Your task to perform on an android device: turn notification dots off Image 0: 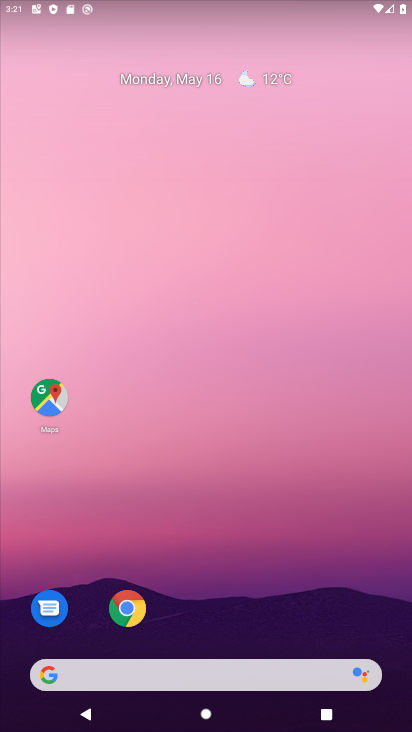
Step 0: drag from (208, 620) to (237, 196)
Your task to perform on an android device: turn notification dots off Image 1: 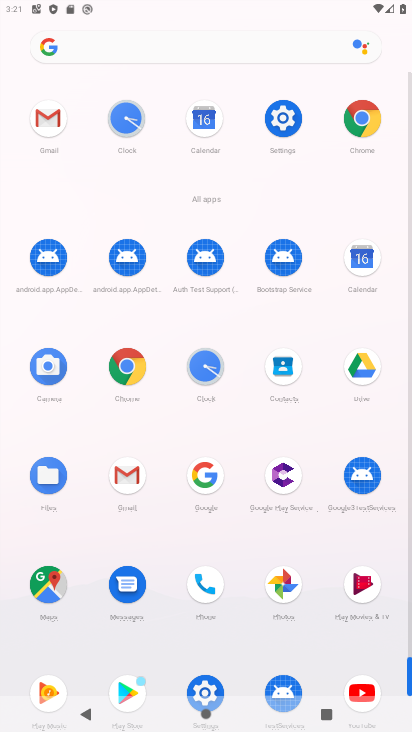
Step 1: click (277, 124)
Your task to perform on an android device: turn notification dots off Image 2: 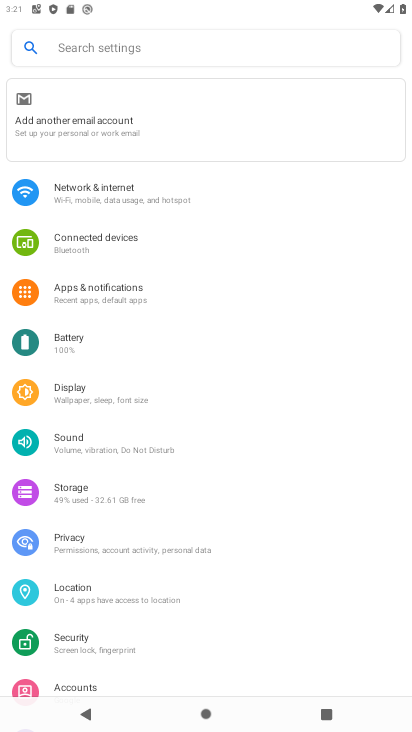
Step 2: click (108, 295)
Your task to perform on an android device: turn notification dots off Image 3: 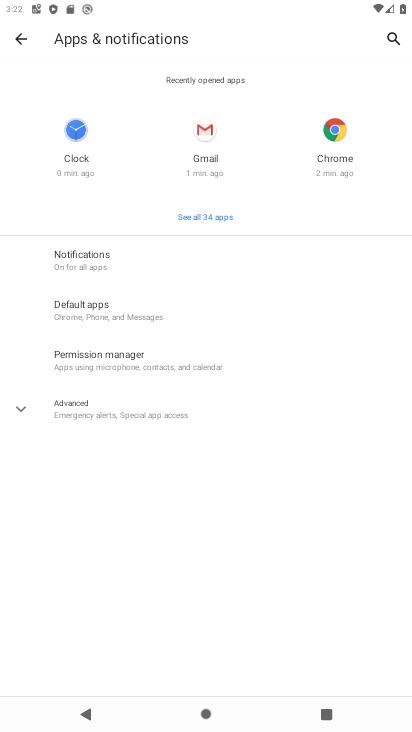
Step 3: click (112, 267)
Your task to perform on an android device: turn notification dots off Image 4: 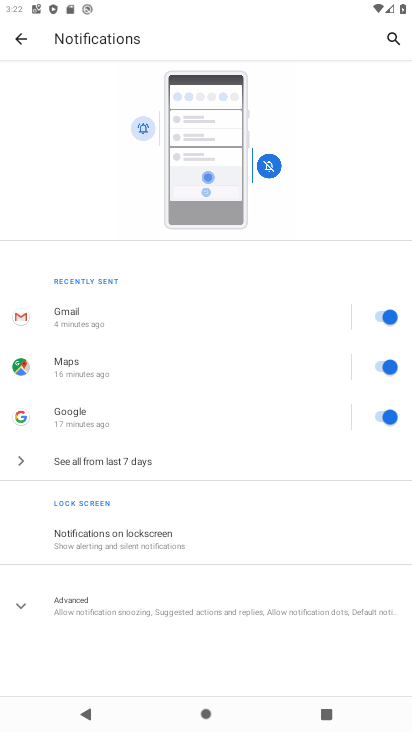
Step 4: drag from (200, 475) to (230, 178)
Your task to perform on an android device: turn notification dots off Image 5: 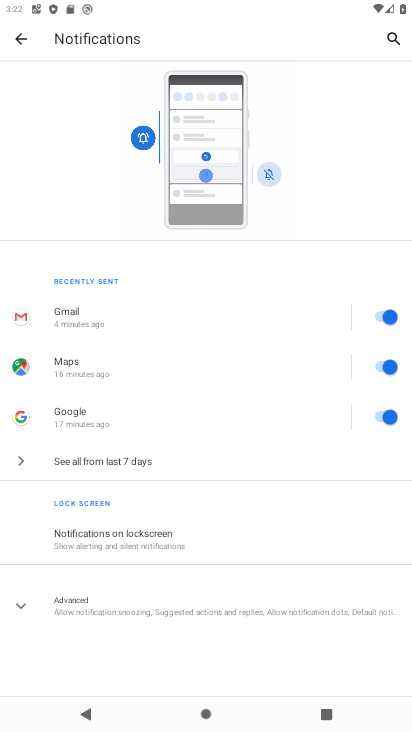
Step 5: click (12, 606)
Your task to perform on an android device: turn notification dots off Image 6: 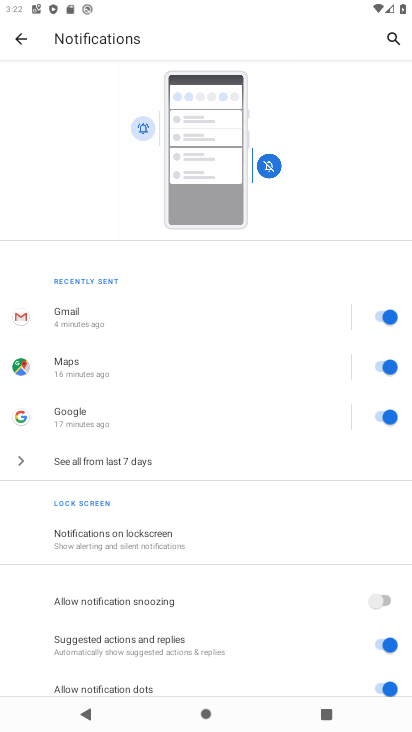
Step 6: drag from (165, 652) to (221, 434)
Your task to perform on an android device: turn notification dots off Image 7: 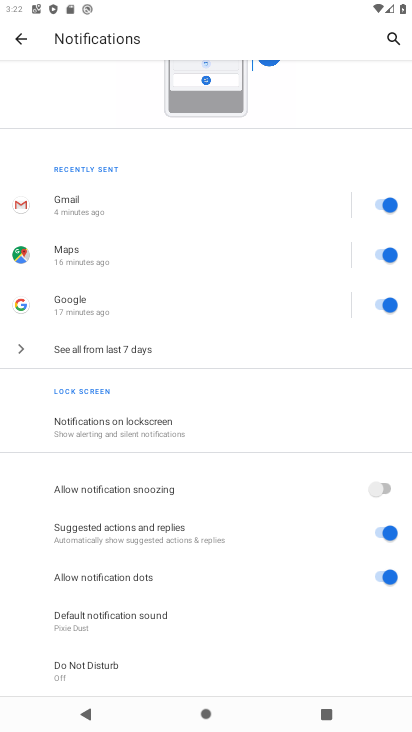
Step 7: click (375, 581)
Your task to perform on an android device: turn notification dots off Image 8: 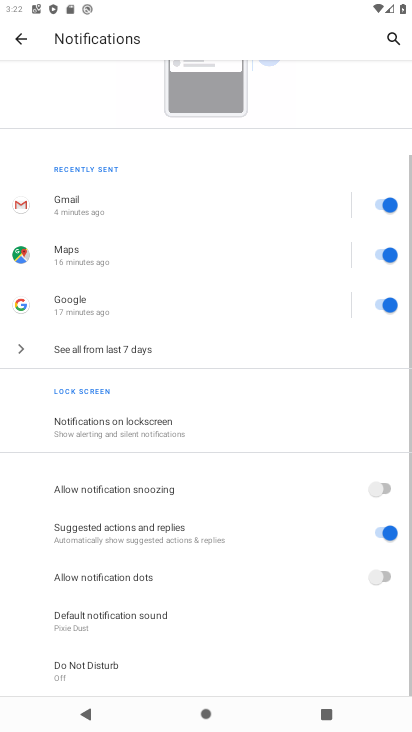
Step 8: task complete